Your task to perform on an android device: When is my next meeting? Image 0: 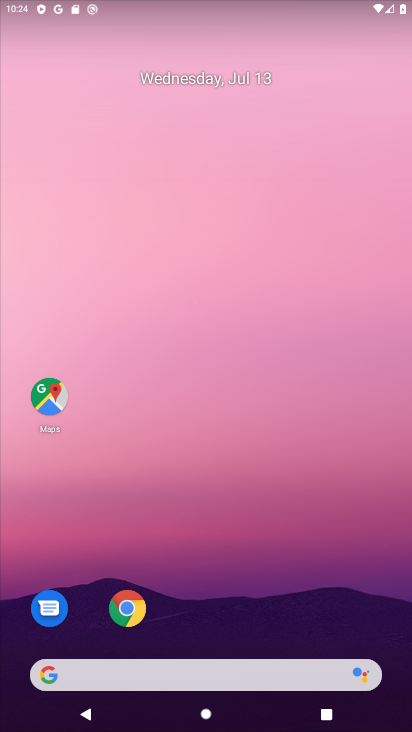
Step 0: drag from (236, 101) to (280, 5)
Your task to perform on an android device: When is my next meeting? Image 1: 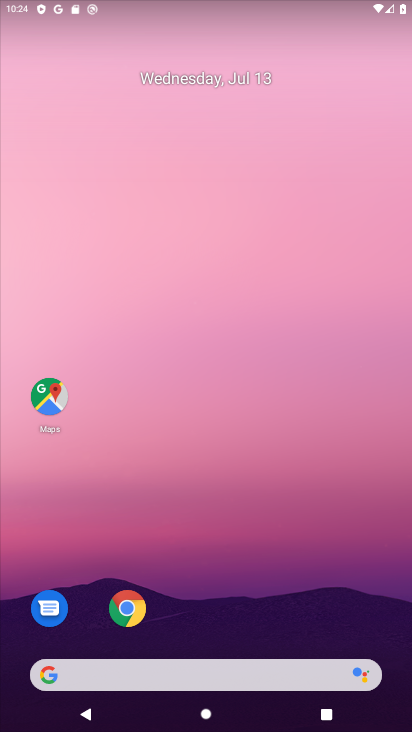
Step 1: drag from (260, 645) to (211, 132)
Your task to perform on an android device: When is my next meeting? Image 2: 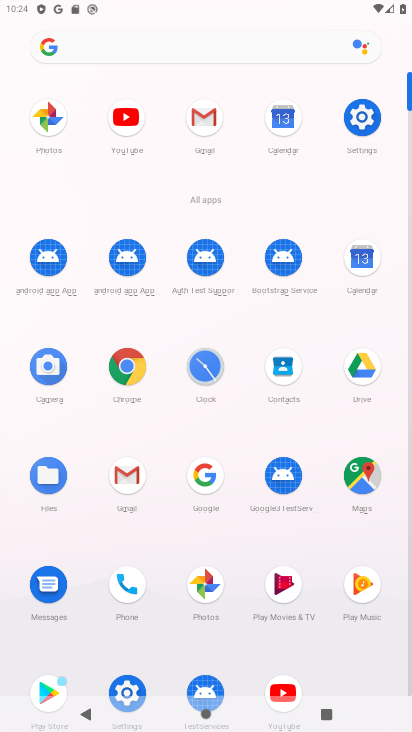
Step 2: click (368, 253)
Your task to perform on an android device: When is my next meeting? Image 3: 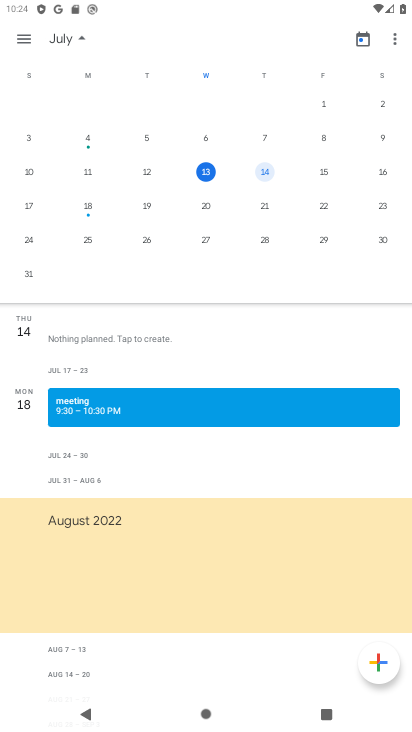
Step 3: click (209, 169)
Your task to perform on an android device: When is my next meeting? Image 4: 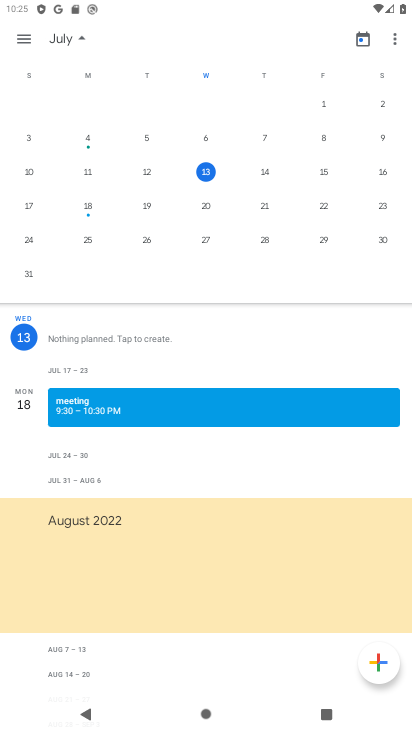
Step 4: task complete